Your task to perform on an android device: all mails in gmail Image 0: 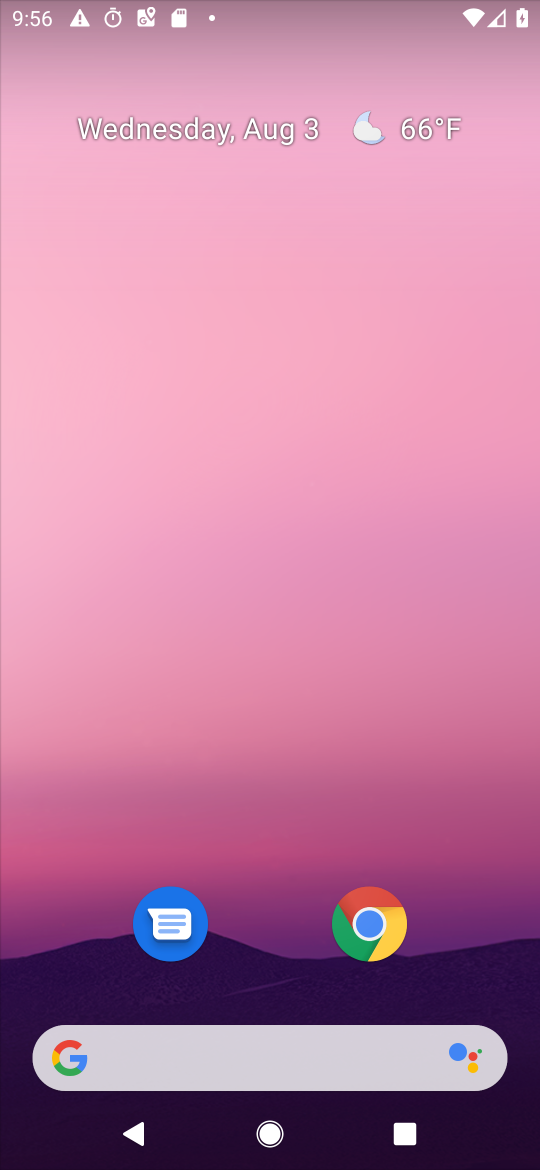
Step 0: press home button
Your task to perform on an android device: all mails in gmail Image 1: 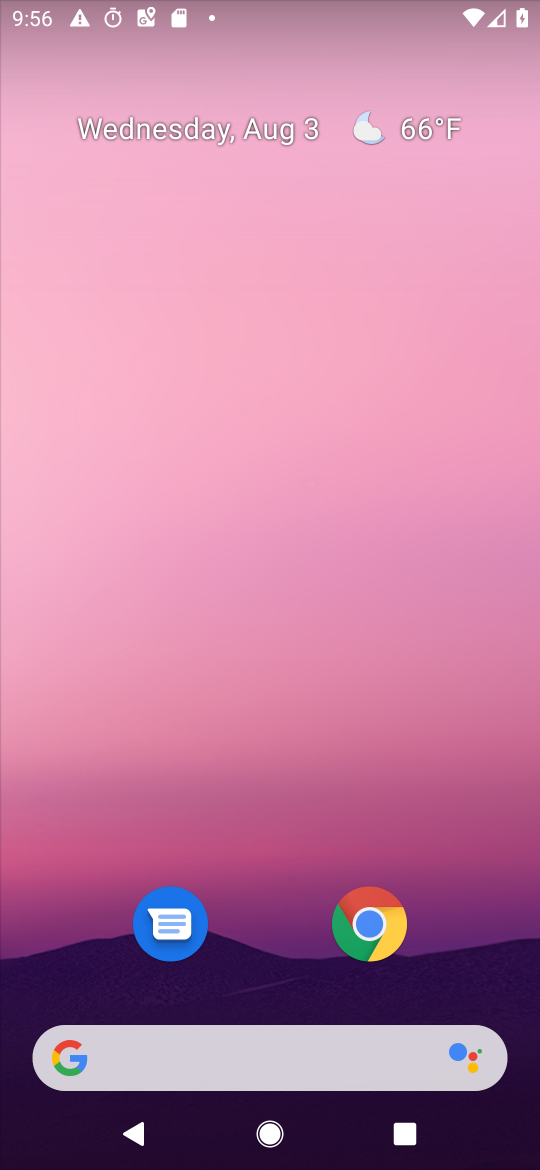
Step 1: drag from (278, 983) to (270, 141)
Your task to perform on an android device: all mails in gmail Image 2: 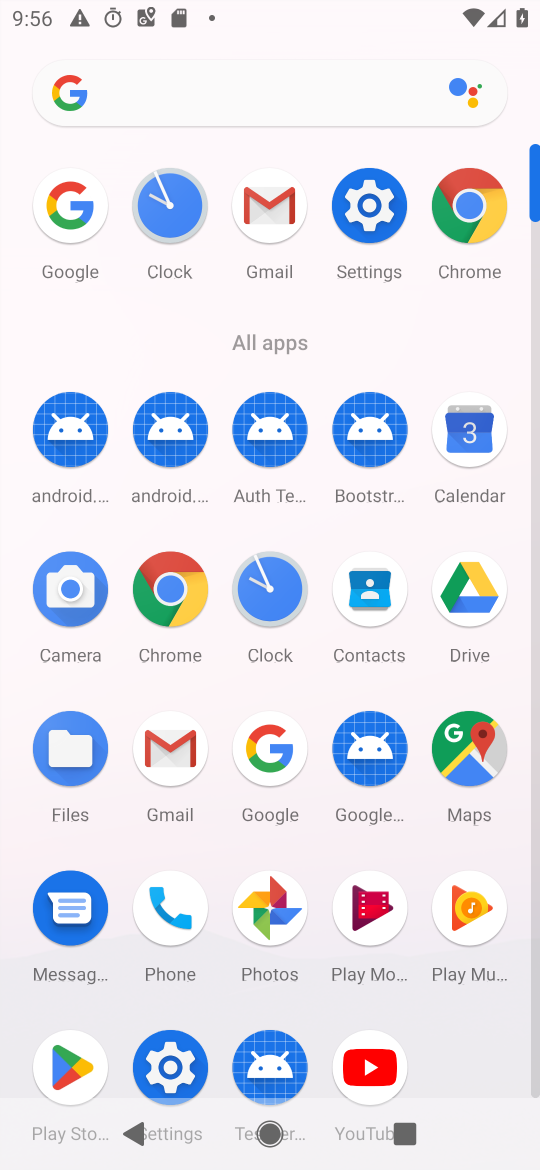
Step 2: click (165, 737)
Your task to perform on an android device: all mails in gmail Image 3: 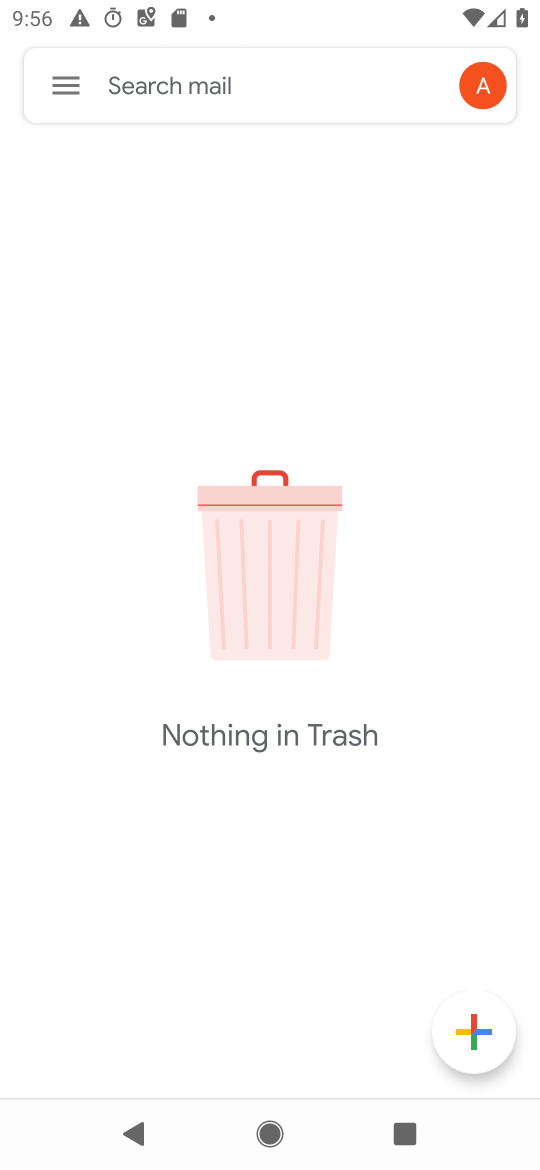
Step 3: click (58, 81)
Your task to perform on an android device: all mails in gmail Image 4: 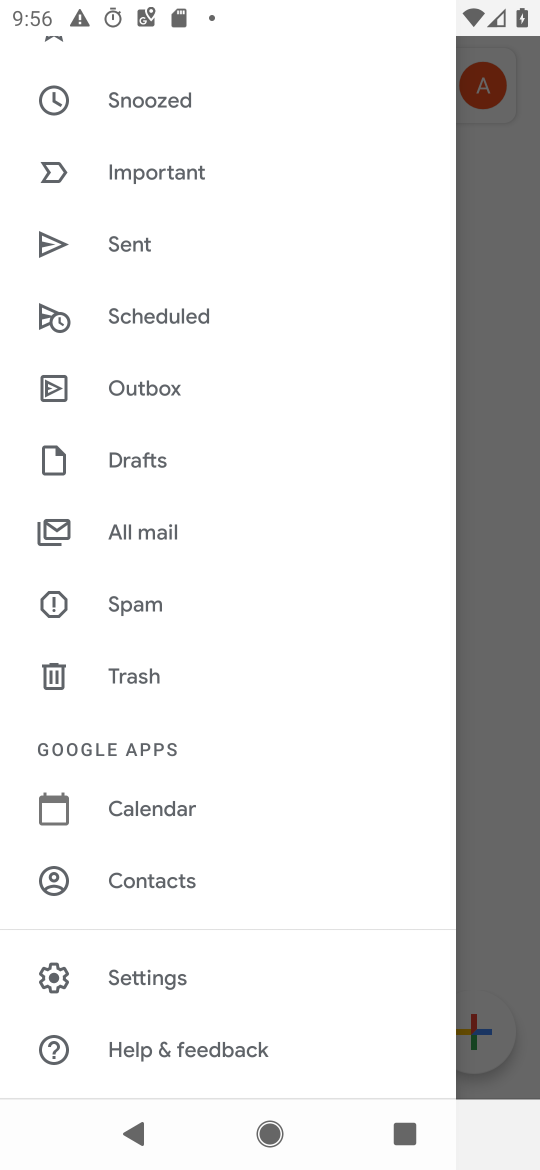
Step 4: click (192, 527)
Your task to perform on an android device: all mails in gmail Image 5: 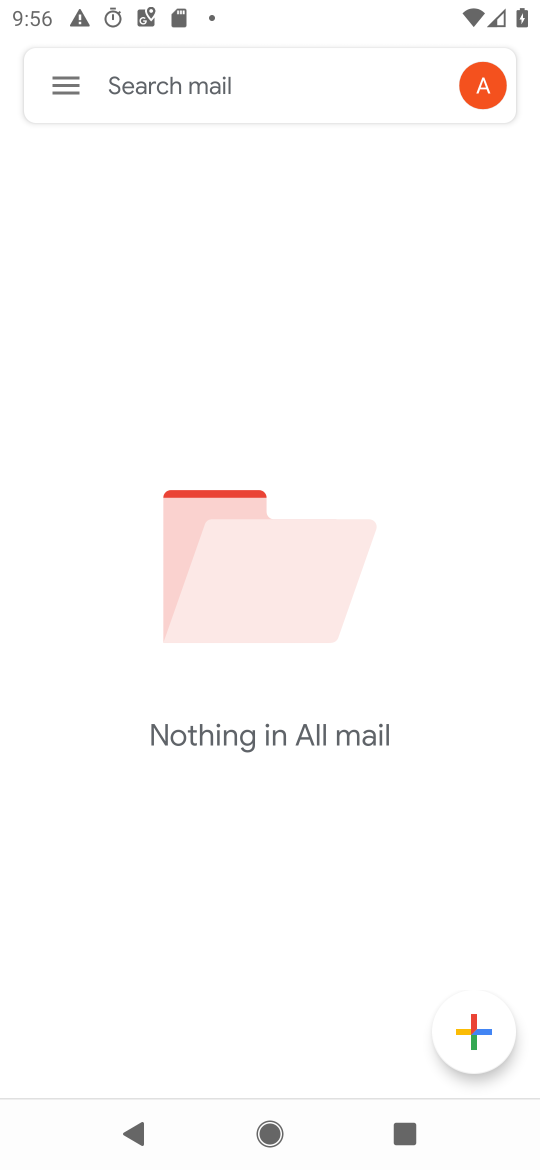
Step 5: task complete